Your task to perform on an android device: turn on javascript in the chrome app Image 0: 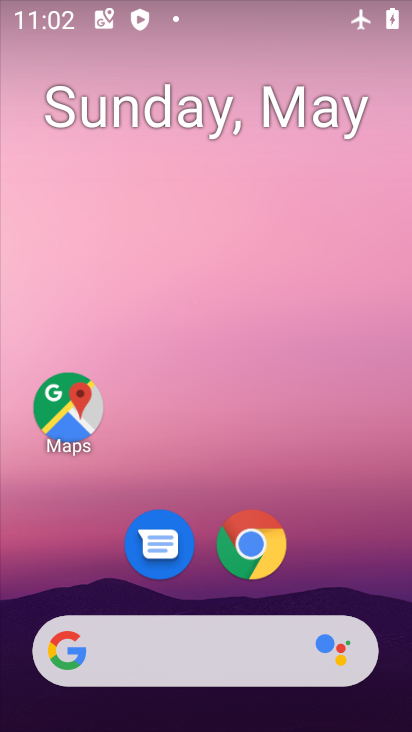
Step 0: click (251, 533)
Your task to perform on an android device: turn on javascript in the chrome app Image 1: 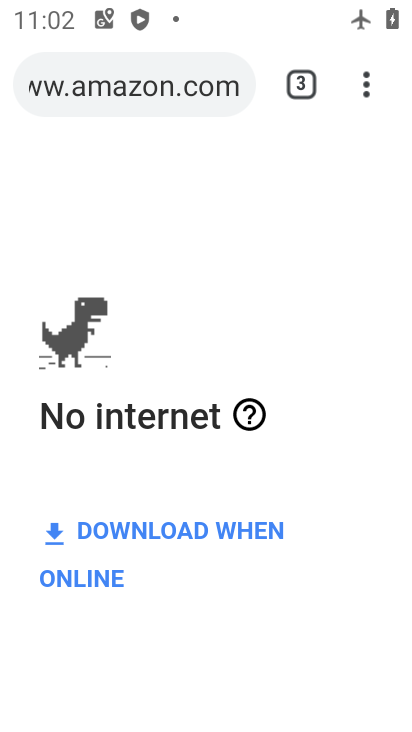
Step 1: click (382, 75)
Your task to perform on an android device: turn on javascript in the chrome app Image 2: 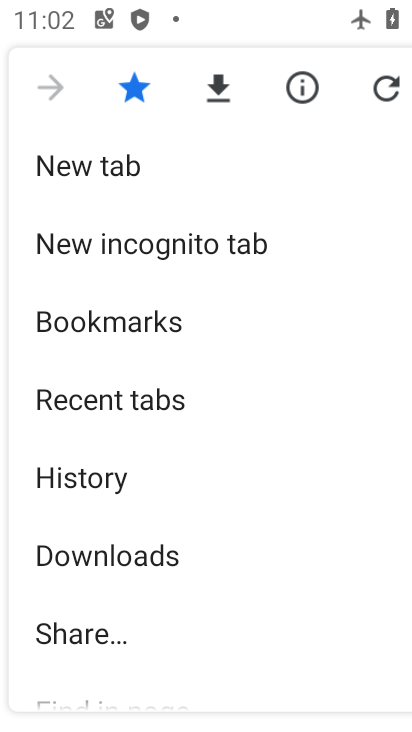
Step 2: drag from (212, 584) to (283, 210)
Your task to perform on an android device: turn on javascript in the chrome app Image 3: 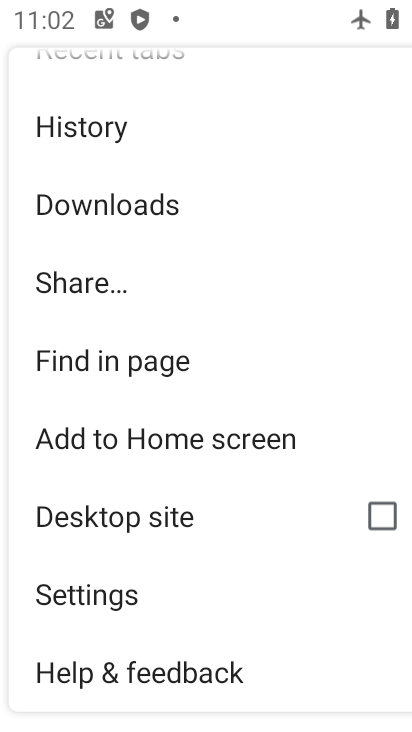
Step 3: click (151, 583)
Your task to perform on an android device: turn on javascript in the chrome app Image 4: 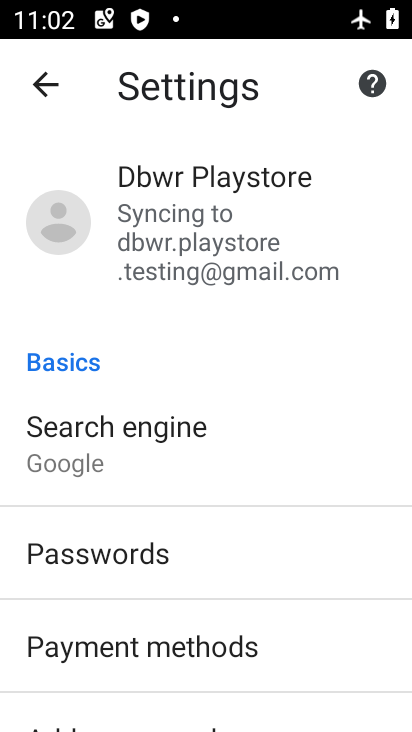
Step 4: drag from (247, 665) to (271, 338)
Your task to perform on an android device: turn on javascript in the chrome app Image 5: 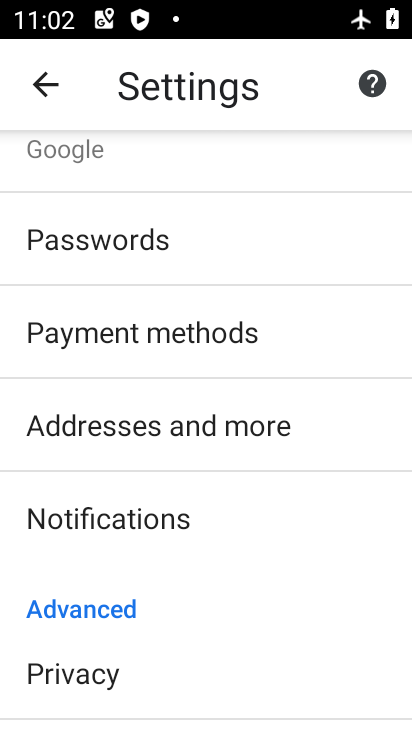
Step 5: drag from (219, 647) to (273, 349)
Your task to perform on an android device: turn on javascript in the chrome app Image 6: 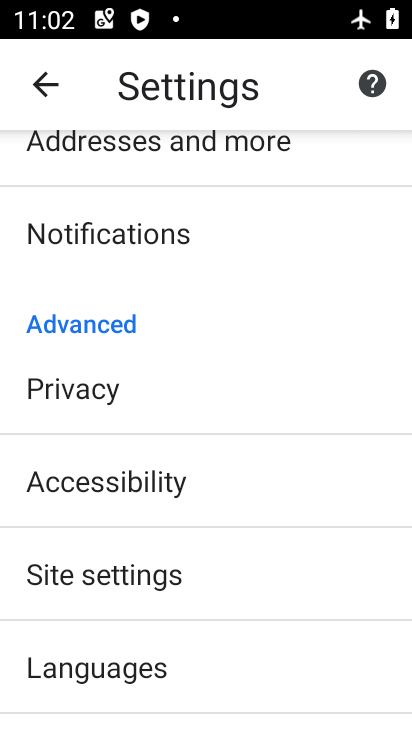
Step 6: drag from (271, 663) to (323, 415)
Your task to perform on an android device: turn on javascript in the chrome app Image 7: 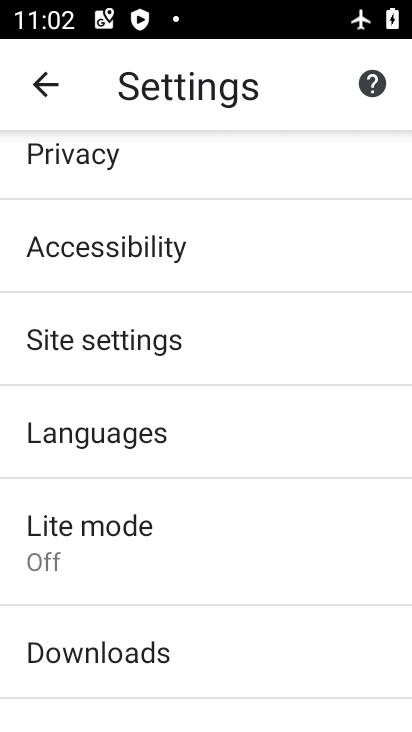
Step 7: click (202, 343)
Your task to perform on an android device: turn on javascript in the chrome app Image 8: 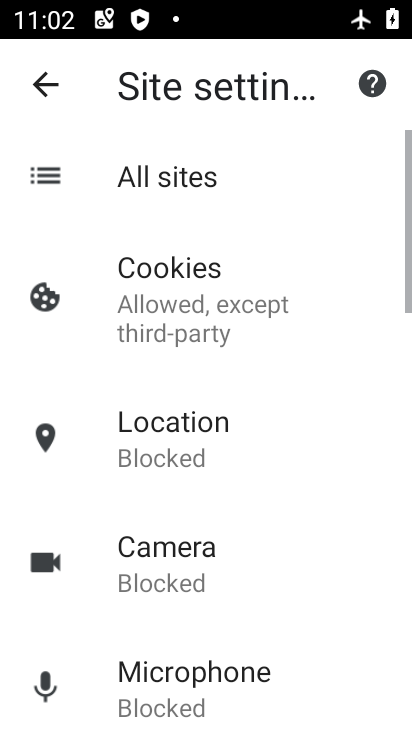
Step 8: drag from (208, 623) to (295, 230)
Your task to perform on an android device: turn on javascript in the chrome app Image 9: 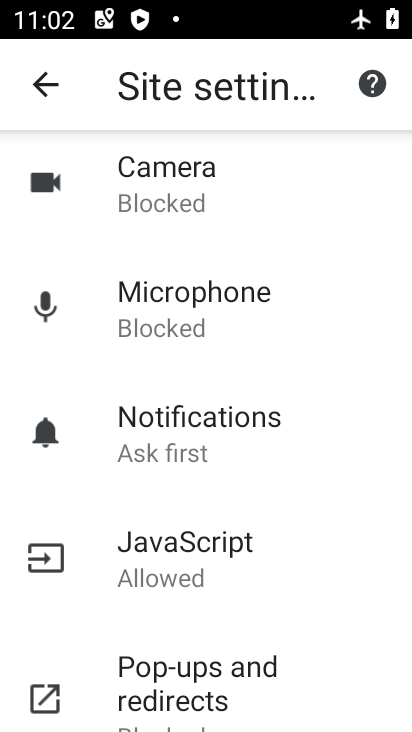
Step 9: click (229, 587)
Your task to perform on an android device: turn on javascript in the chrome app Image 10: 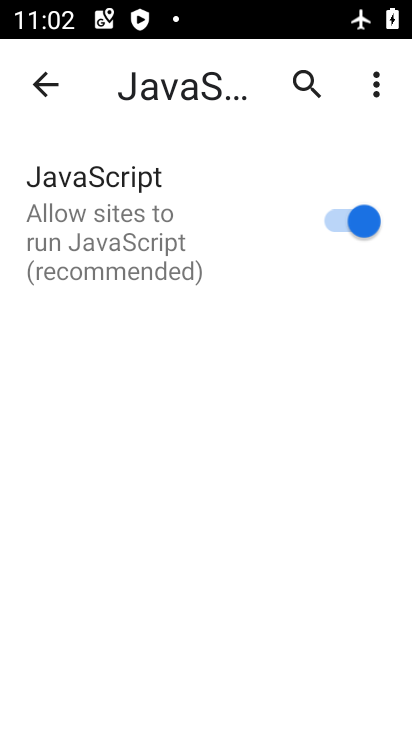
Step 10: task complete